Your task to perform on an android device: turn on wifi Image 0: 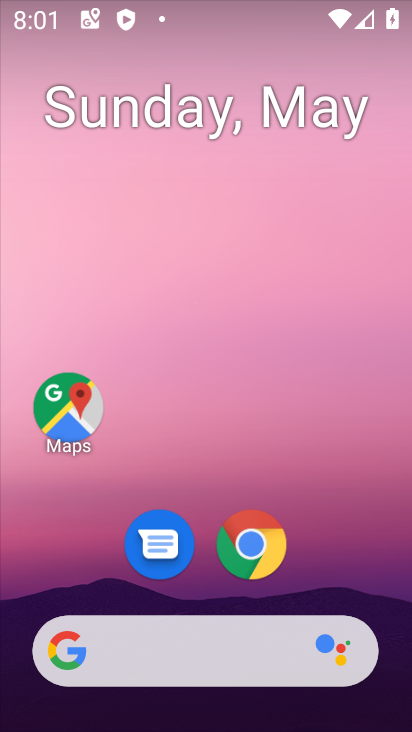
Step 0: drag from (318, 557) to (269, 5)
Your task to perform on an android device: turn on wifi Image 1: 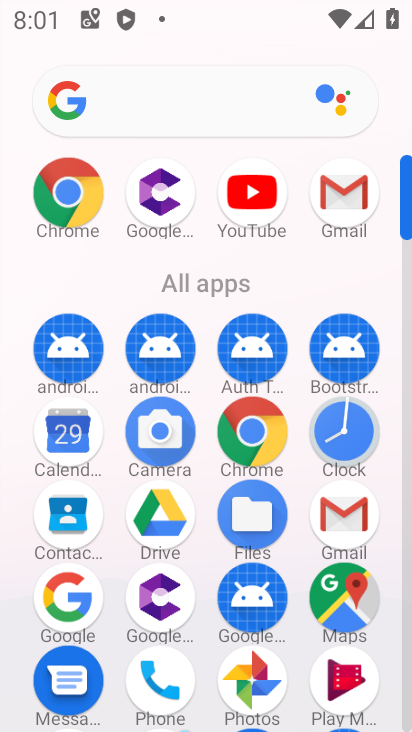
Step 1: drag from (10, 501) to (10, 210)
Your task to perform on an android device: turn on wifi Image 2: 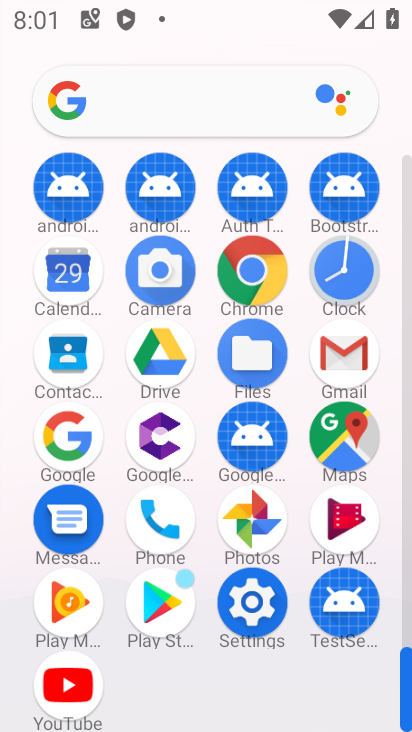
Step 2: click (249, 597)
Your task to perform on an android device: turn on wifi Image 3: 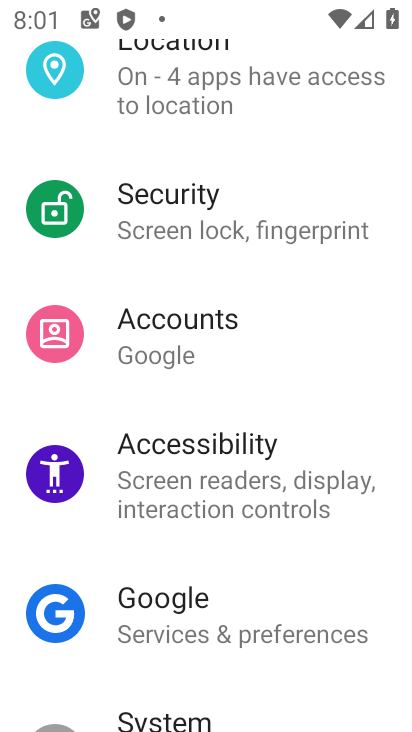
Step 3: drag from (257, 129) to (258, 572)
Your task to perform on an android device: turn on wifi Image 4: 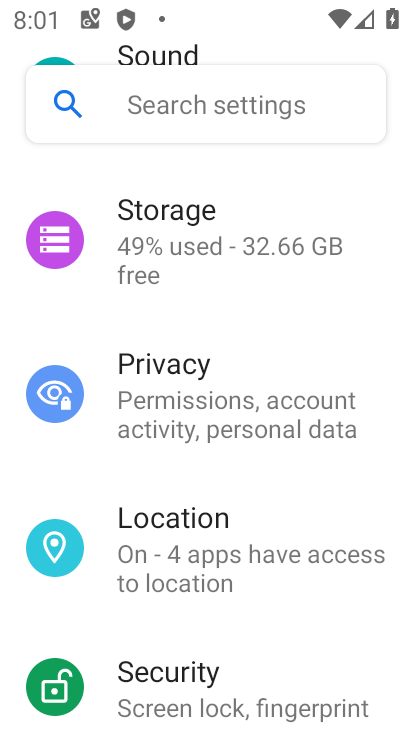
Step 4: drag from (264, 205) to (268, 576)
Your task to perform on an android device: turn on wifi Image 5: 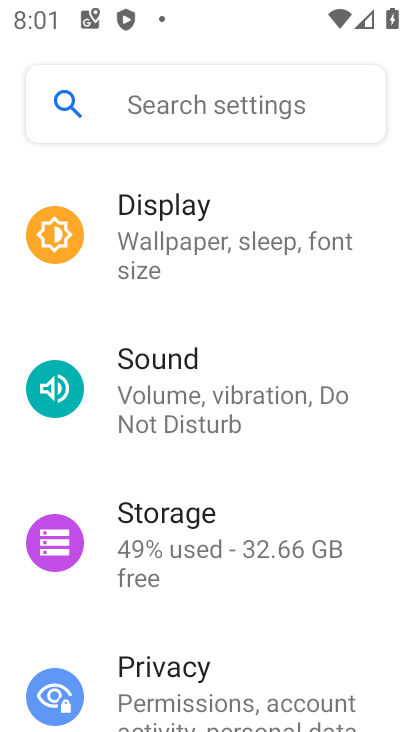
Step 5: drag from (274, 222) to (275, 567)
Your task to perform on an android device: turn on wifi Image 6: 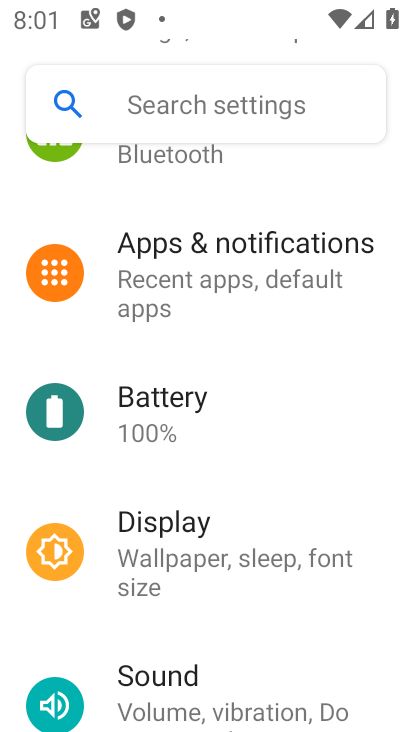
Step 6: drag from (263, 250) to (263, 597)
Your task to perform on an android device: turn on wifi Image 7: 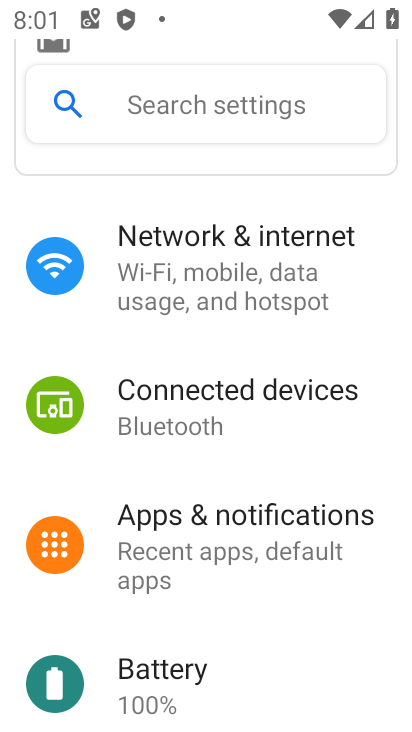
Step 7: click (209, 280)
Your task to perform on an android device: turn on wifi Image 8: 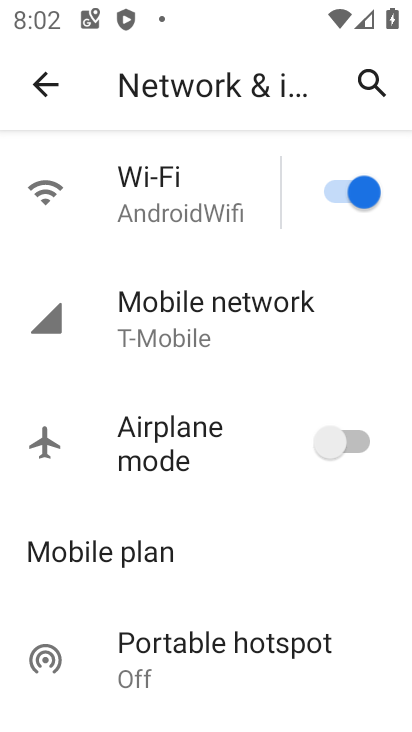
Step 8: task complete